Your task to perform on an android device: Search for pizza restaurants on Maps Image 0: 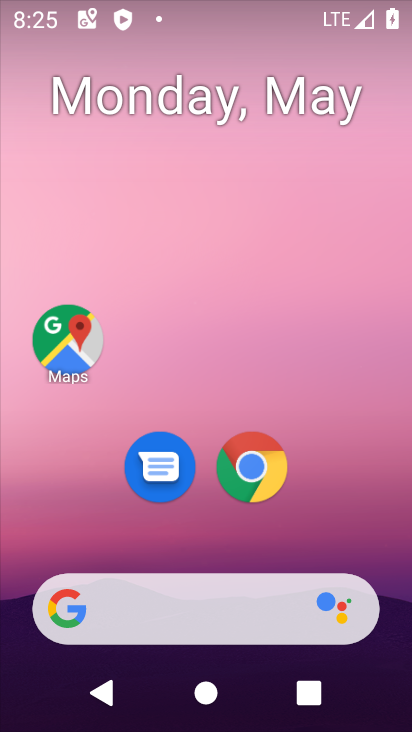
Step 0: click (67, 338)
Your task to perform on an android device: Search for pizza restaurants on Maps Image 1: 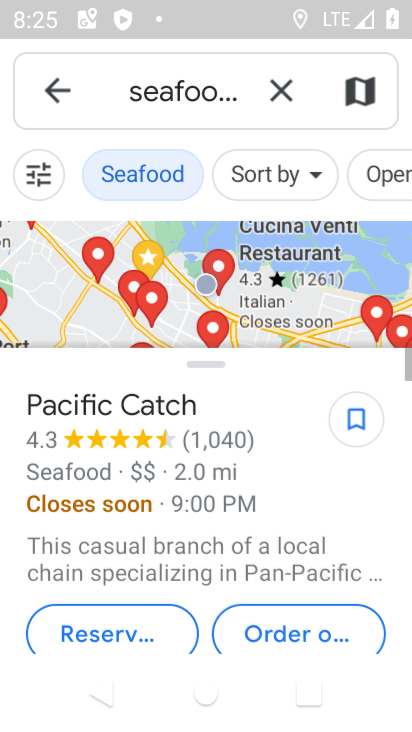
Step 1: click (283, 83)
Your task to perform on an android device: Search for pizza restaurants on Maps Image 2: 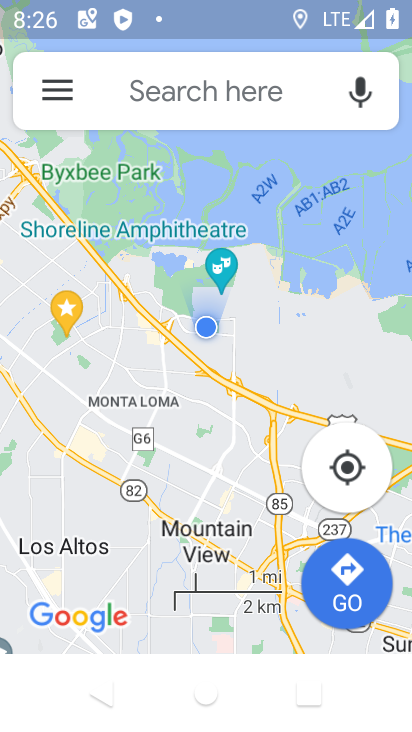
Step 2: click (195, 87)
Your task to perform on an android device: Search for pizza restaurants on Maps Image 3: 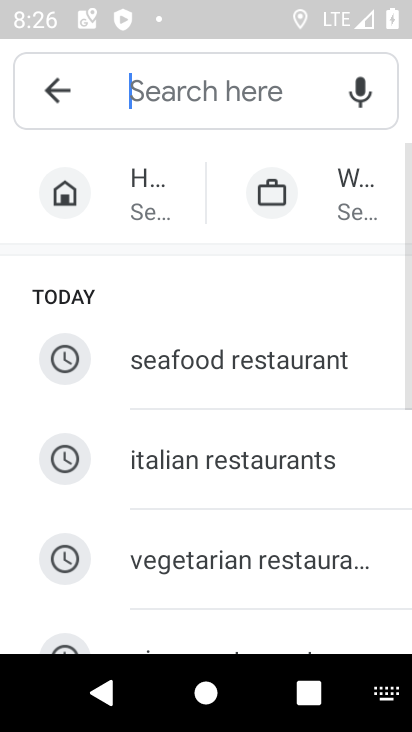
Step 3: drag from (283, 568) to (270, 224)
Your task to perform on an android device: Search for pizza restaurants on Maps Image 4: 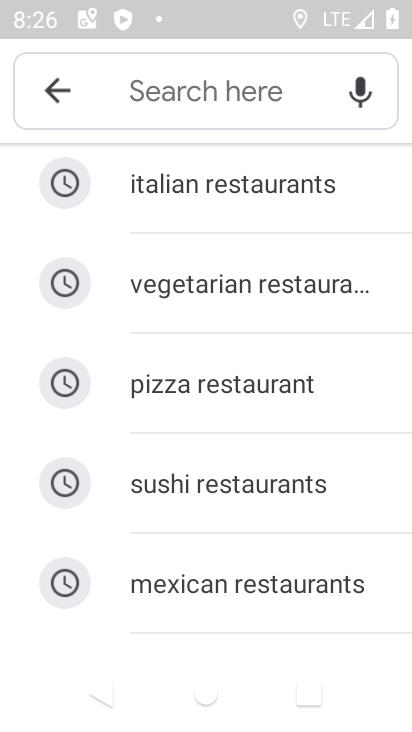
Step 4: click (243, 388)
Your task to perform on an android device: Search for pizza restaurants on Maps Image 5: 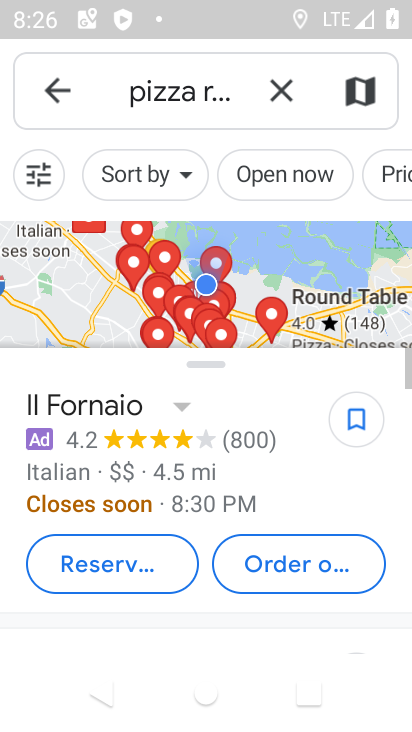
Step 5: task complete